Your task to perform on an android device: visit the assistant section in the google photos Image 0: 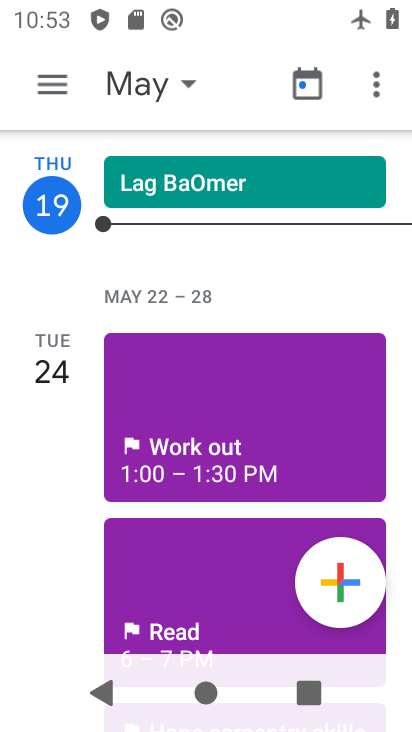
Step 0: press home button
Your task to perform on an android device: visit the assistant section in the google photos Image 1: 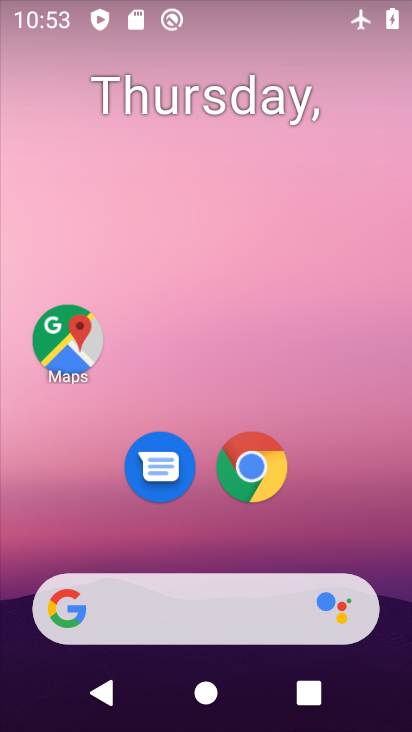
Step 1: drag from (324, 560) to (356, 7)
Your task to perform on an android device: visit the assistant section in the google photos Image 2: 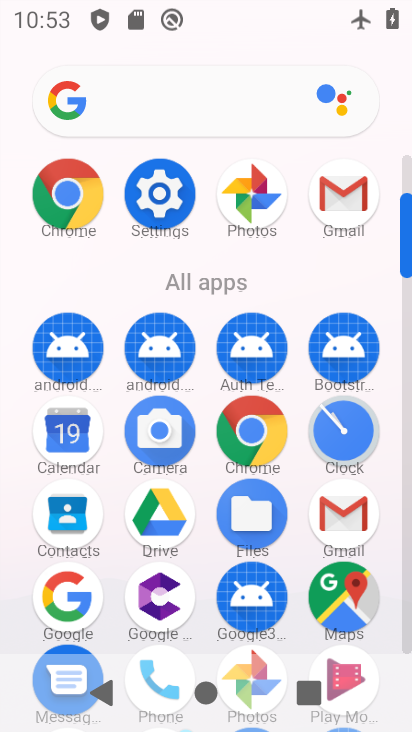
Step 2: click (247, 201)
Your task to perform on an android device: visit the assistant section in the google photos Image 3: 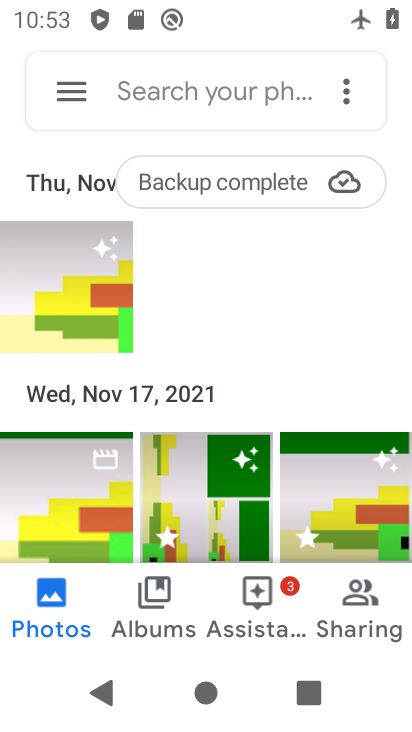
Step 3: click (233, 617)
Your task to perform on an android device: visit the assistant section in the google photos Image 4: 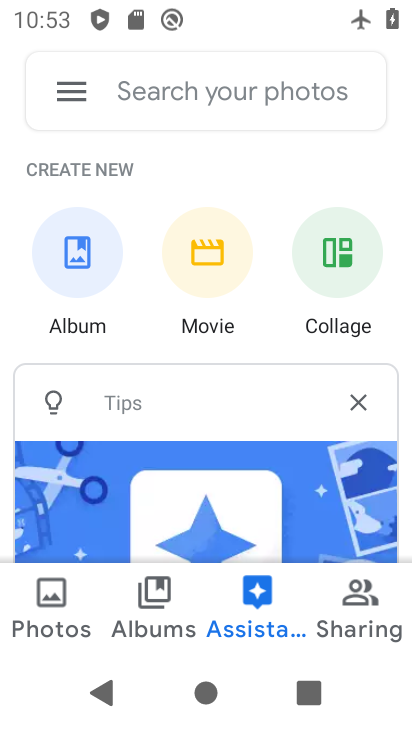
Step 4: task complete